Your task to perform on an android device: Do I have any events today? Image 0: 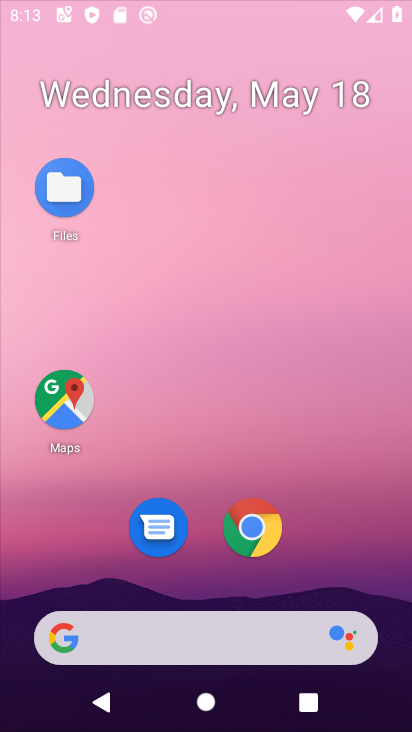
Step 0: drag from (356, 717) to (180, 92)
Your task to perform on an android device: Do I have any events today? Image 1: 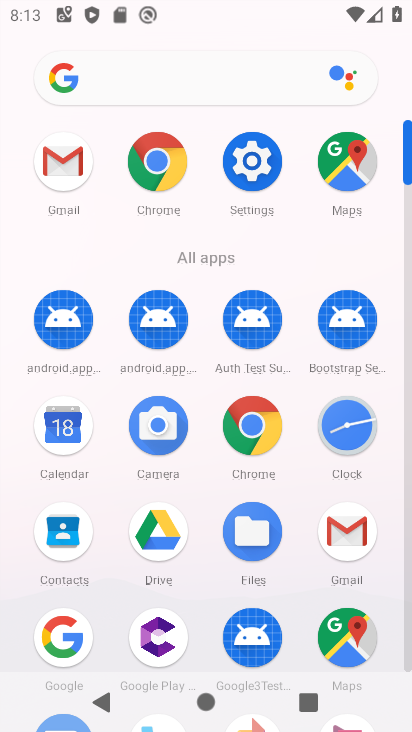
Step 1: click (61, 427)
Your task to perform on an android device: Do I have any events today? Image 2: 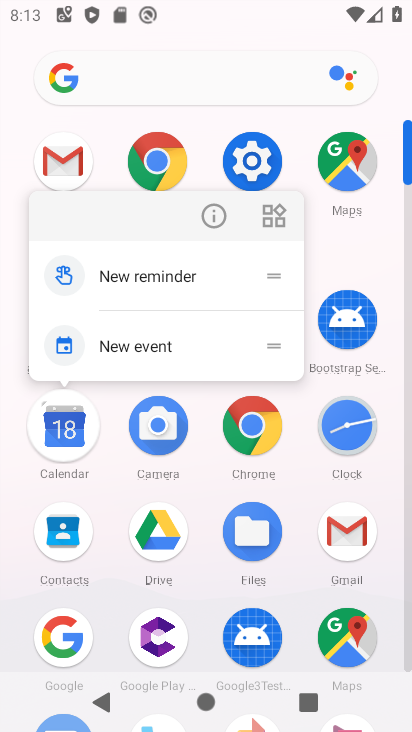
Step 2: click (61, 427)
Your task to perform on an android device: Do I have any events today? Image 3: 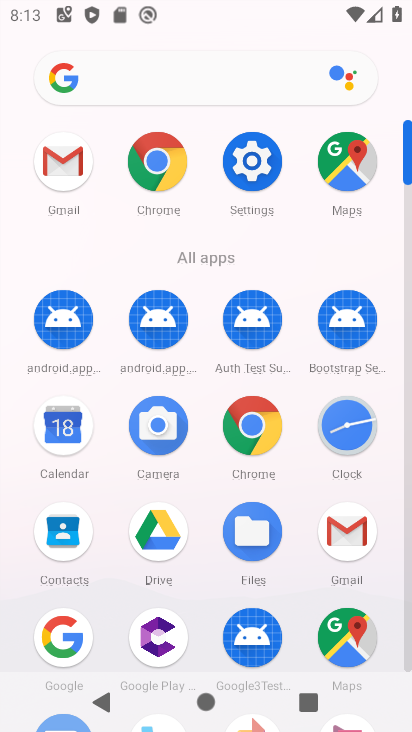
Step 3: click (61, 427)
Your task to perform on an android device: Do I have any events today? Image 4: 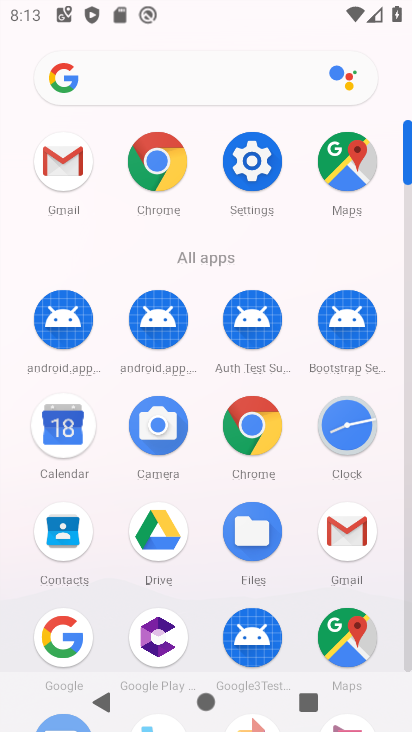
Step 4: click (60, 426)
Your task to perform on an android device: Do I have any events today? Image 5: 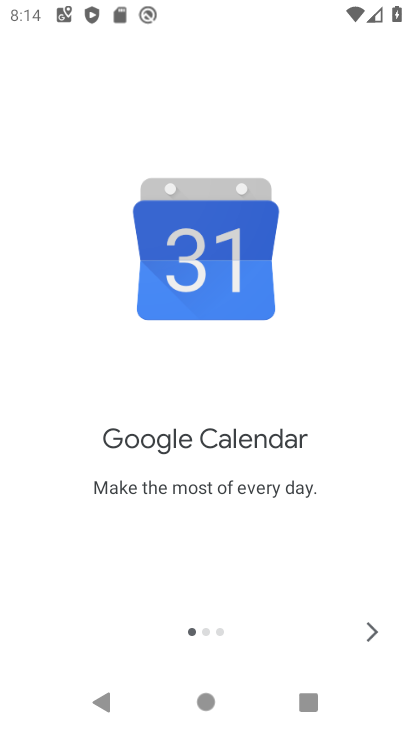
Step 5: click (371, 616)
Your task to perform on an android device: Do I have any events today? Image 6: 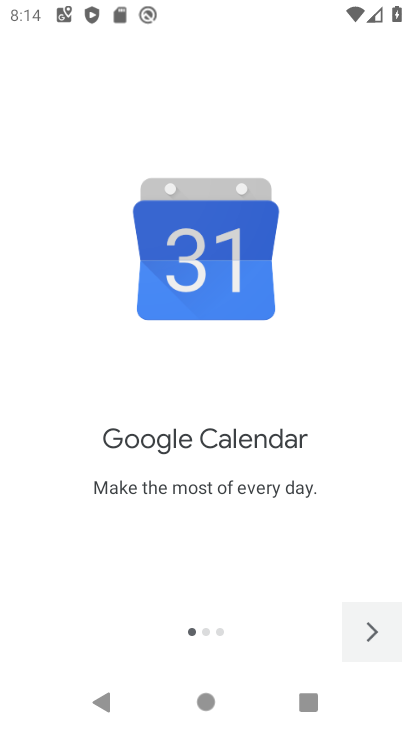
Step 6: click (369, 620)
Your task to perform on an android device: Do I have any events today? Image 7: 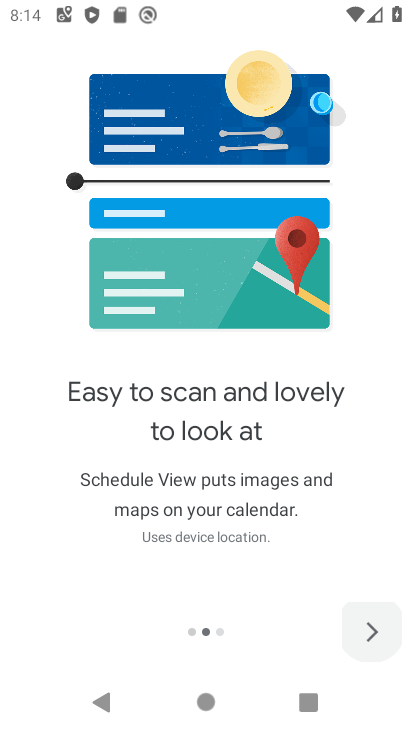
Step 7: click (369, 620)
Your task to perform on an android device: Do I have any events today? Image 8: 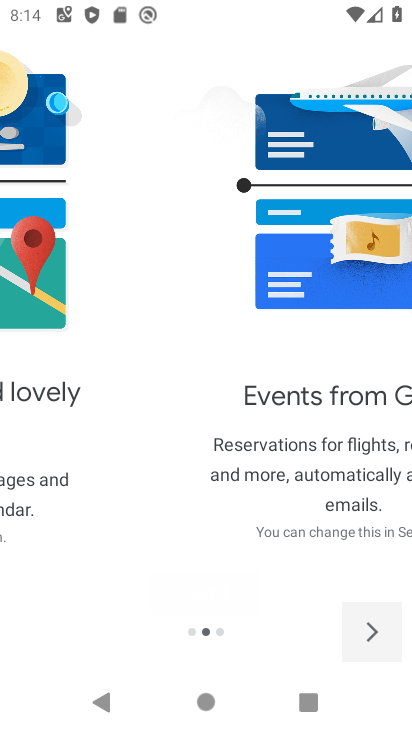
Step 8: click (369, 620)
Your task to perform on an android device: Do I have any events today? Image 9: 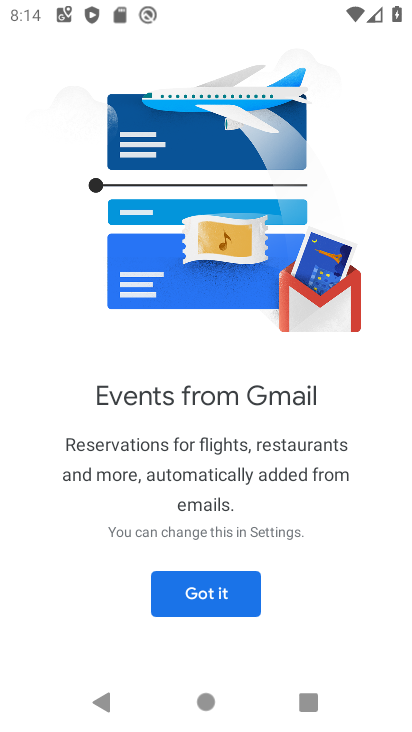
Step 9: click (369, 620)
Your task to perform on an android device: Do I have any events today? Image 10: 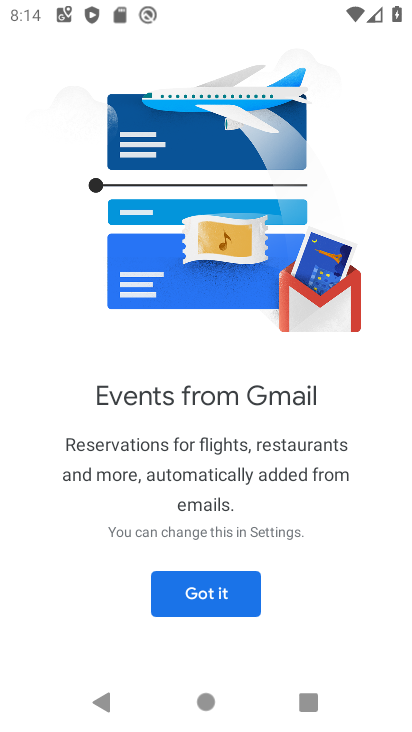
Step 10: click (369, 620)
Your task to perform on an android device: Do I have any events today? Image 11: 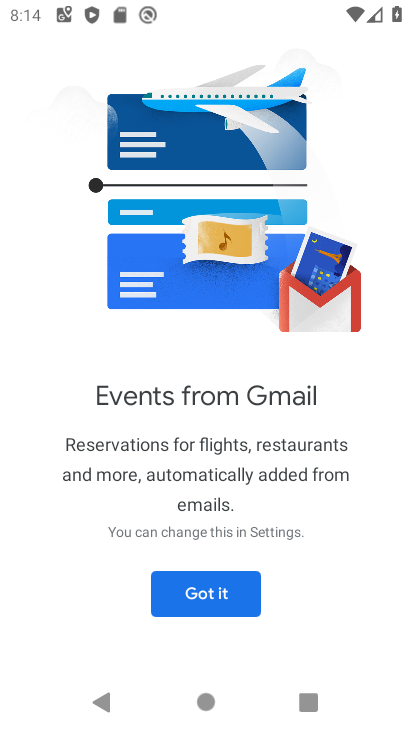
Step 11: click (214, 585)
Your task to perform on an android device: Do I have any events today? Image 12: 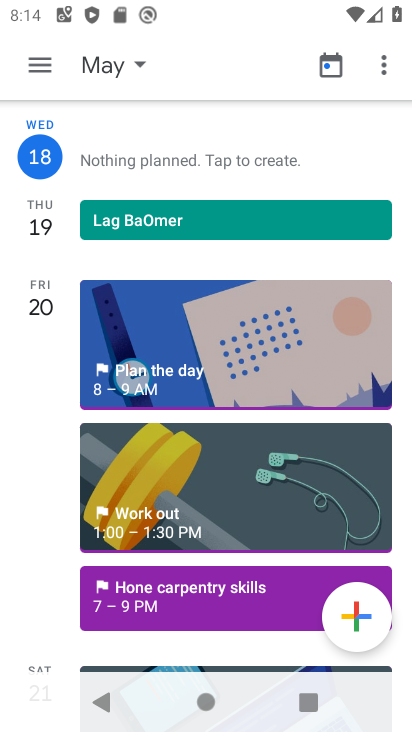
Step 12: click (99, 228)
Your task to perform on an android device: Do I have any events today? Image 13: 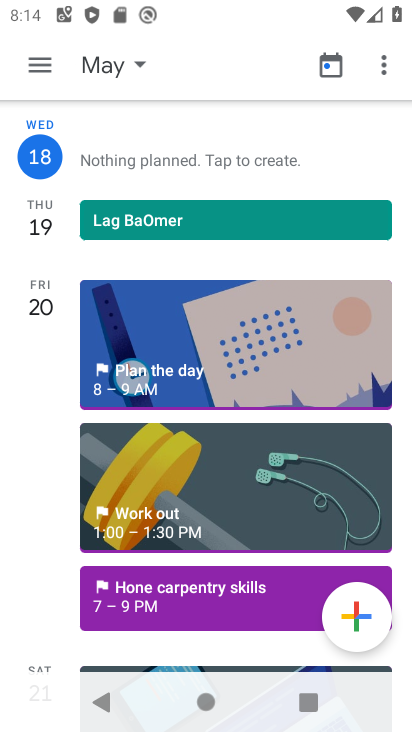
Step 13: click (99, 227)
Your task to perform on an android device: Do I have any events today? Image 14: 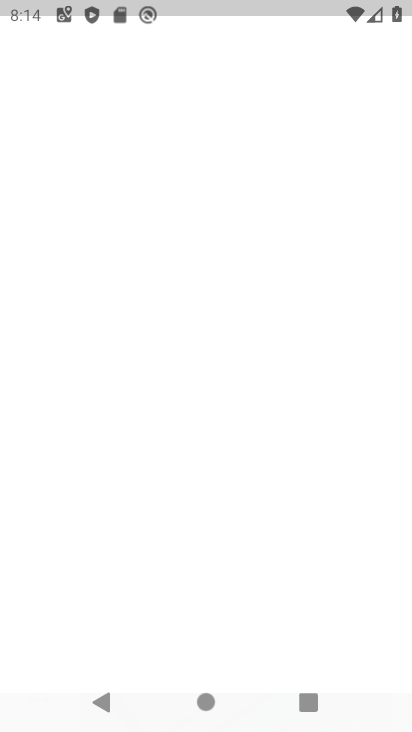
Step 14: click (100, 226)
Your task to perform on an android device: Do I have any events today? Image 15: 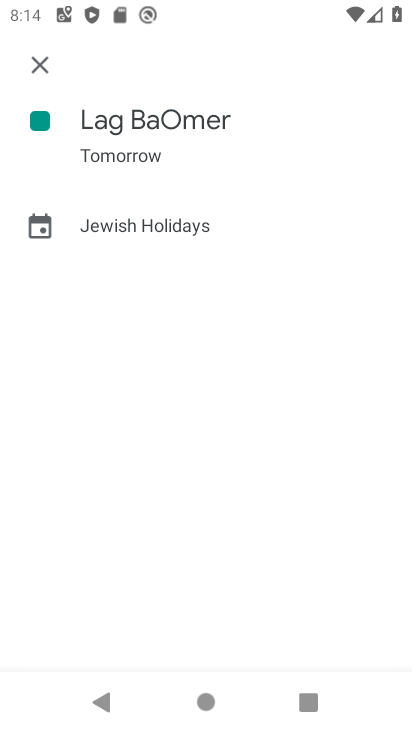
Step 15: click (104, 218)
Your task to perform on an android device: Do I have any events today? Image 16: 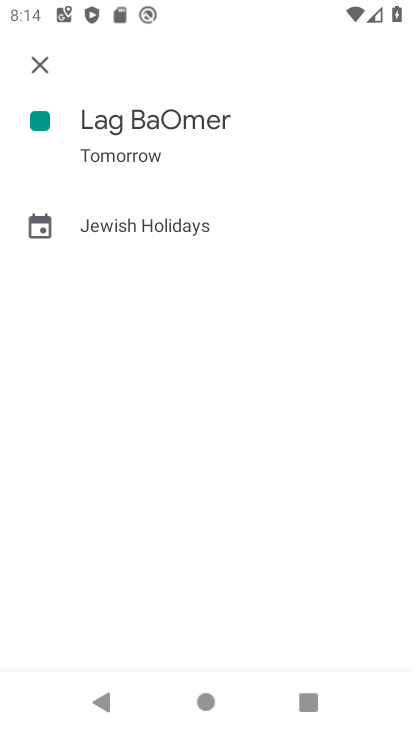
Step 16: task complete